Your task to perform on an android device: Open Amazon Image 0: 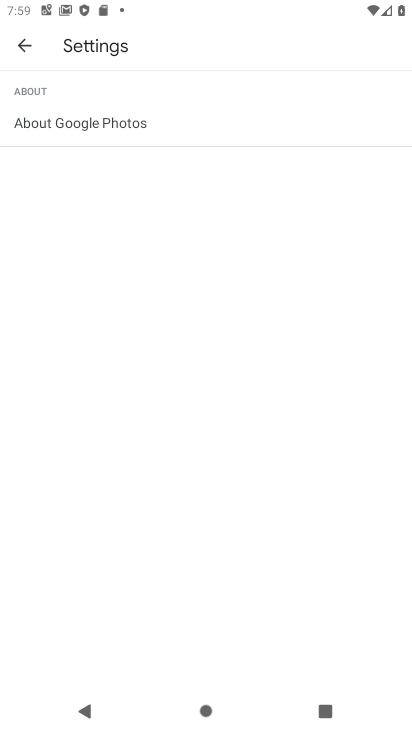
Step 0: press home button
Your task to perform on an android device: Open Amazon Image 1: 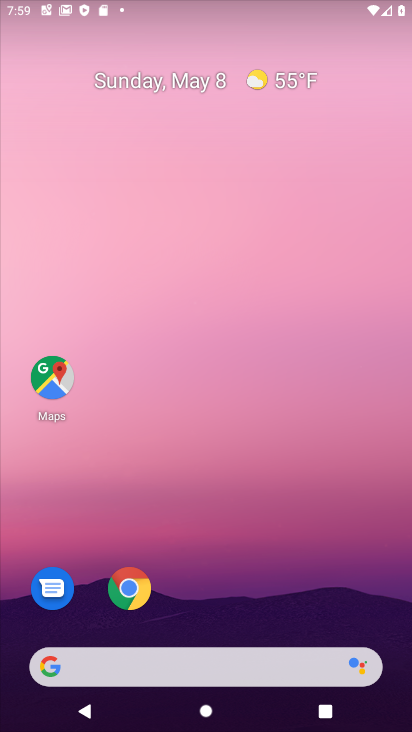
Step 1: drag from (360, 628) to (323, 66)
Your task to perform on an android device: Open Amazon Image 2: 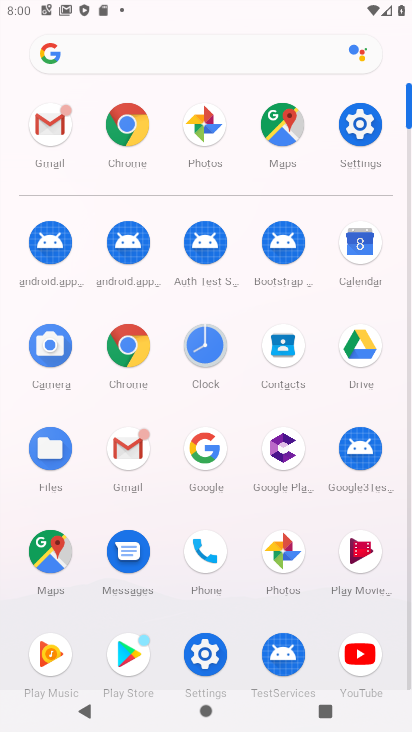
Step 2: click (135, 131)
Your task to perform on an android device: Open Amazon Image 3: 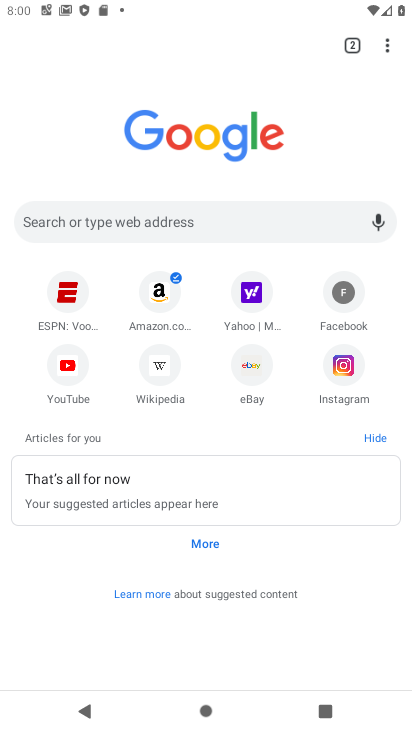
Step 3: click (167, 289)
Your task to perform on an android device: Open Amazon Image 4: 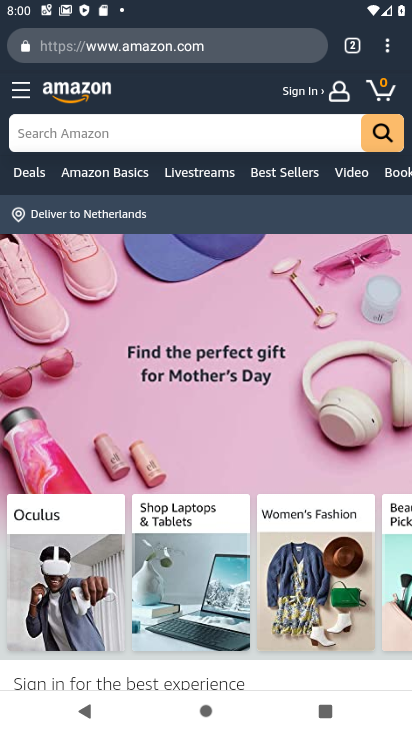
Step 4: task complete